Your task to perform on an android device: open the mobile data screen to see how much data has been used Image 0: 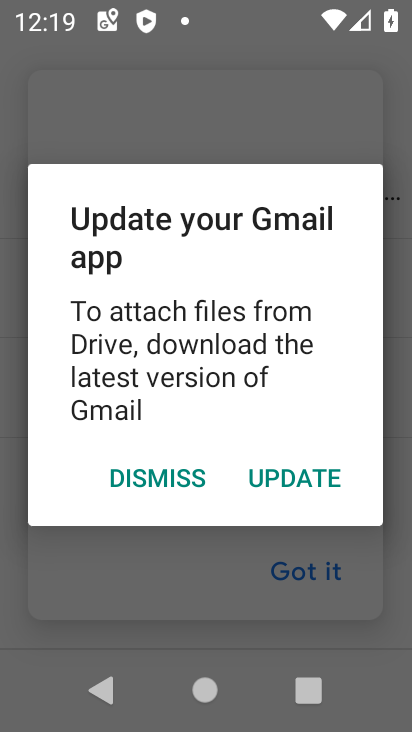
Step 0: press home button
Your task to perform on an android device: open the mobile data screen to see how much data has been used Image 1: 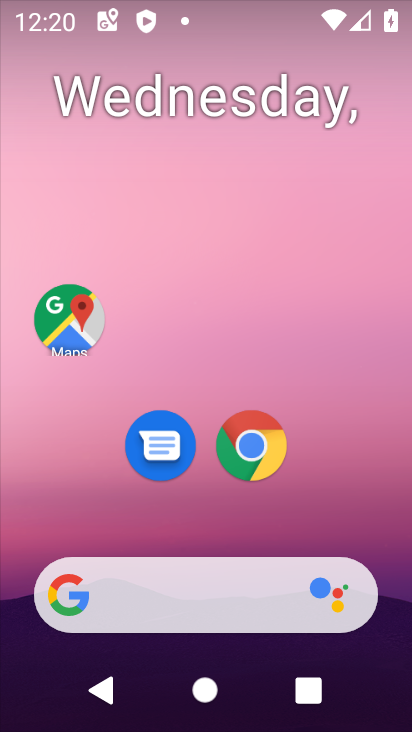
Step 1: drag from (342, 511) to (305, 15)
Your task to perform on an android device: open the mobile data screen to see how much data has been used Image 2: 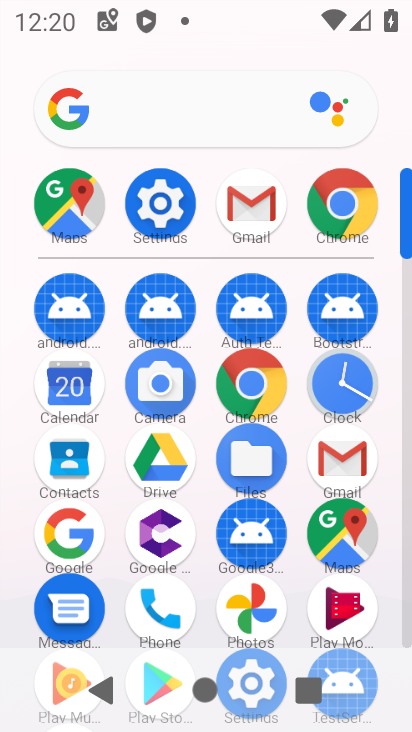
Step 2: click (154, 196)
Your task to perform on an android device: open the mobile data screen to see how much data has been used Image 3: 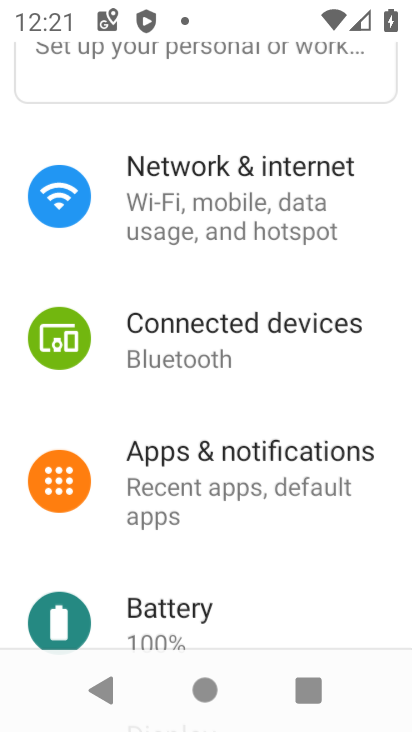
Step 3: click (155, 198)
Your task to perform on an android device: open the mobile data screen to see how much data has been used Image 4: 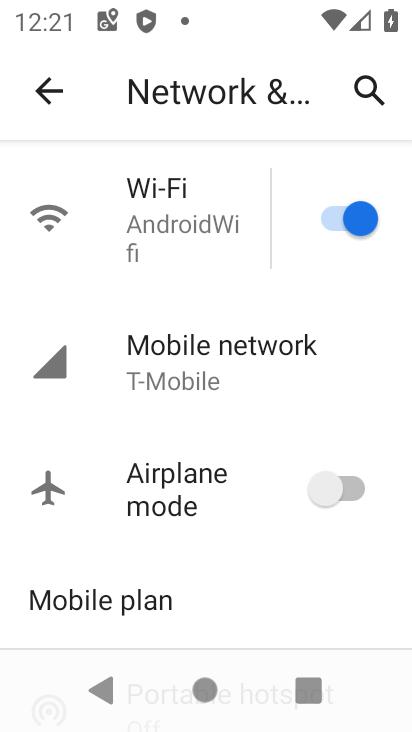
Step 4: click (240, 367)
Your task to perform on an android device: open the mobile data screen to see how much data has been used Image 5: 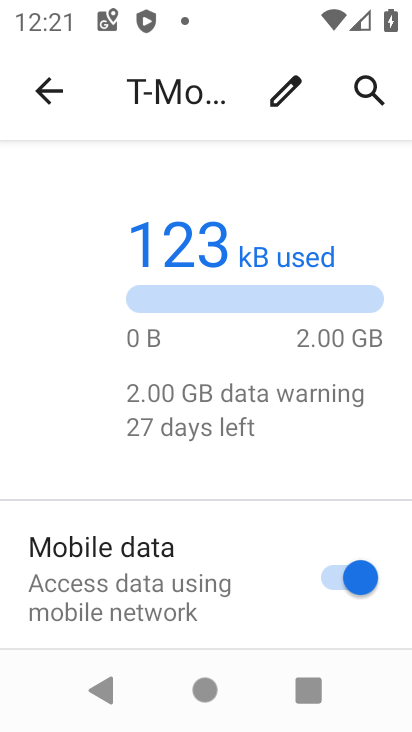
Step 5: task complete